Your task to perform on an android device: turn on airplane mode Image 0: 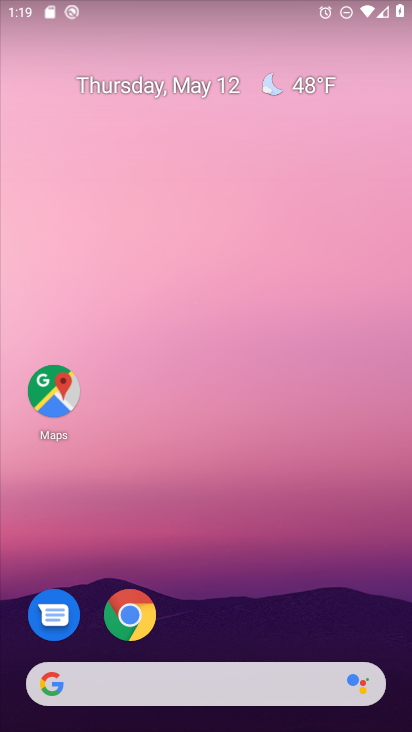
Step 0: drag from (301, 649) to (320, 0)
Your task to perform on an android device: turn on airplane mode Image 1: 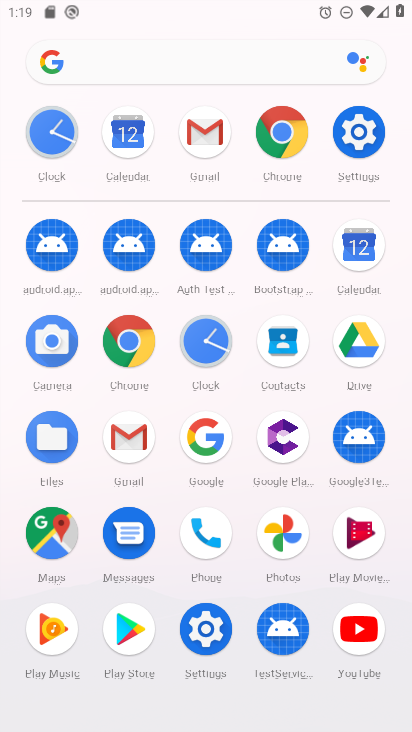
Step 1: click (363, 147)
Your task to perform on an android device: turn on airplane mode Image 2: 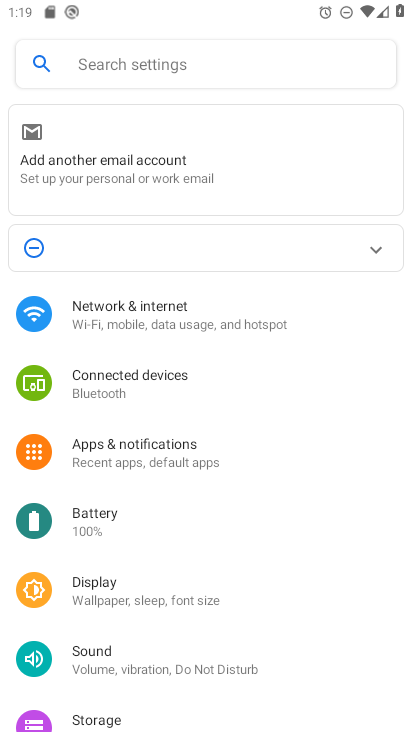
Step 2: click (193, 306)
Your task to perform on an android device: turn on airplane mode Image 3: 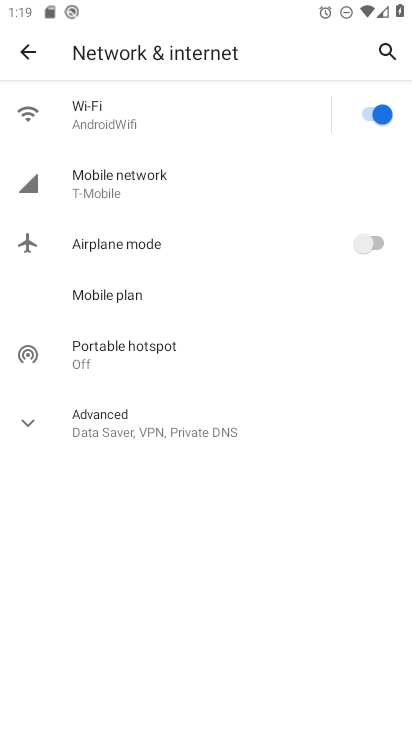
Step 3: click (375, 238)
Your task to perform on an android device: turn on airplane mode Image 4: 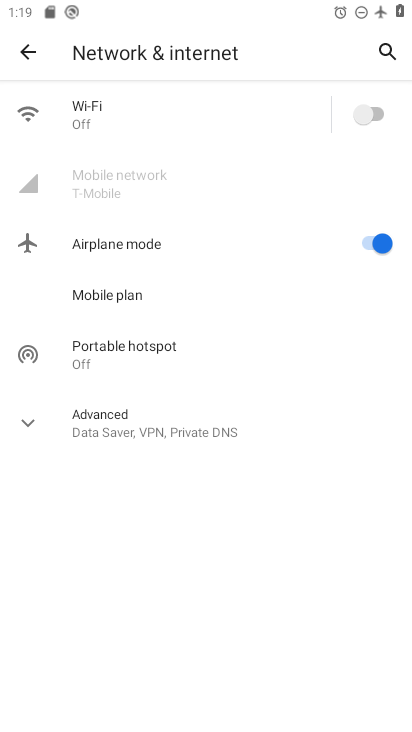
Step 4: task complete